Your task to perform on an android device: Open network settings Image 0: 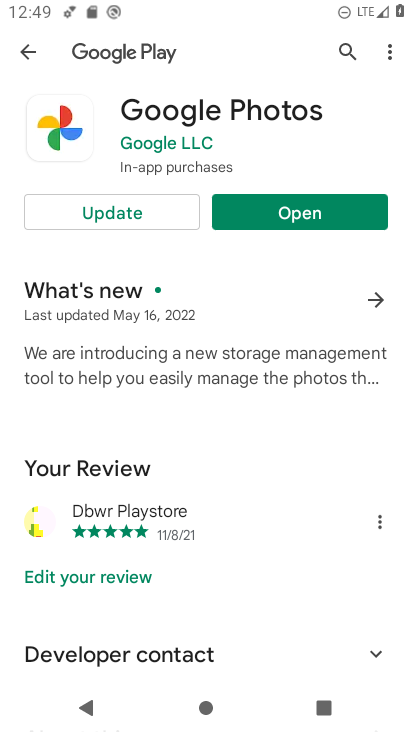
Step 0: press home button
Your task to perform on an android device: Open network settings Image 1: 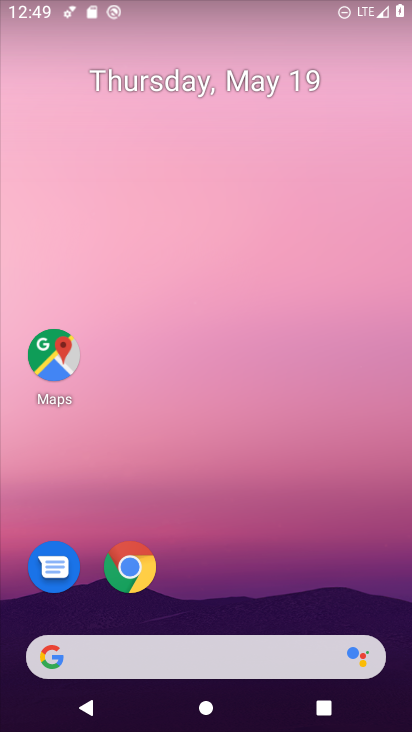
Step 1: drag from (286, 565) to (284, 131)
Your task to perform on an android device: Open network settings Image 2: 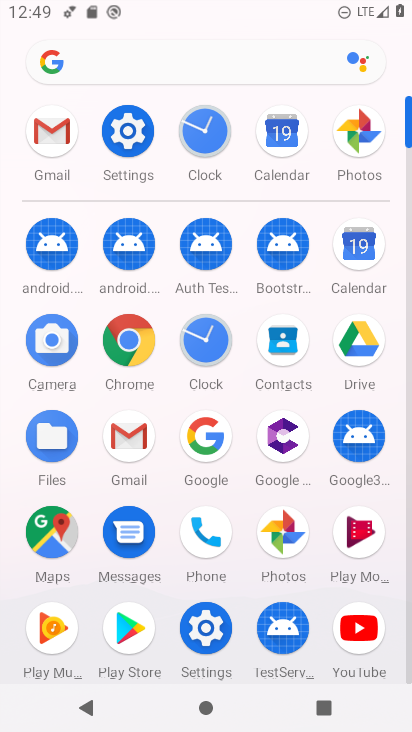
Step 2: click (131, 133)
Your task to perform on an android device: Open network settings Image 3: 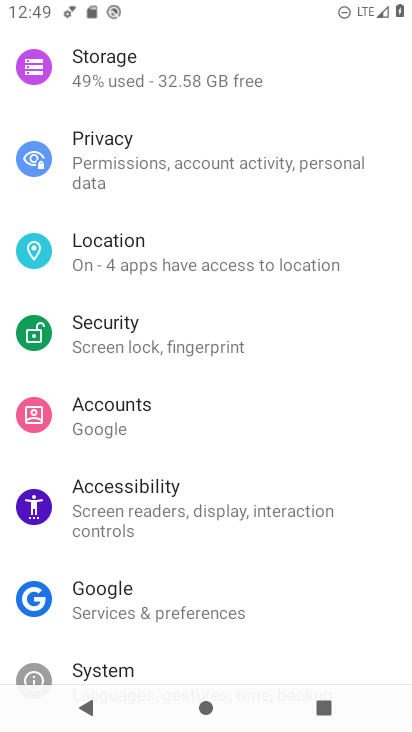
Step 3: drag from (203, 215) to (222, 625)
Your task to perform on an android device: Open network settings Image 4: 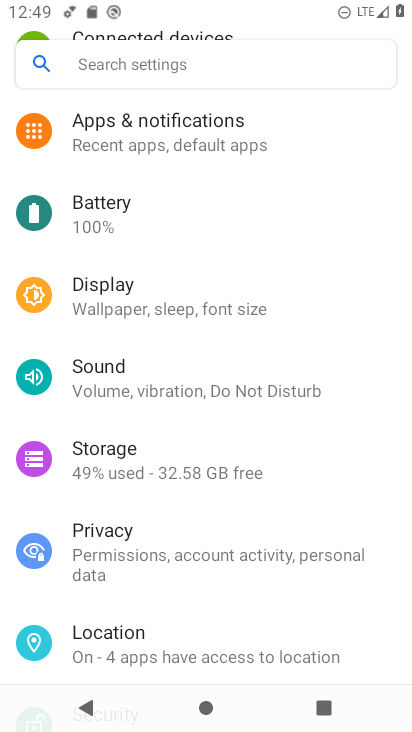
Step 4: drag from (218, 241) to (252, 660)
Your task to perform on an android device: Open network settings Image 5: 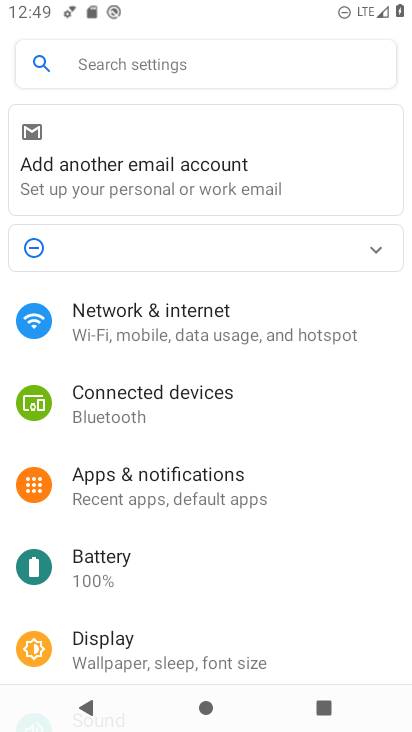
Step 5: click (216, 314)
Your task to perform on an android device: Open network settings Image 6: 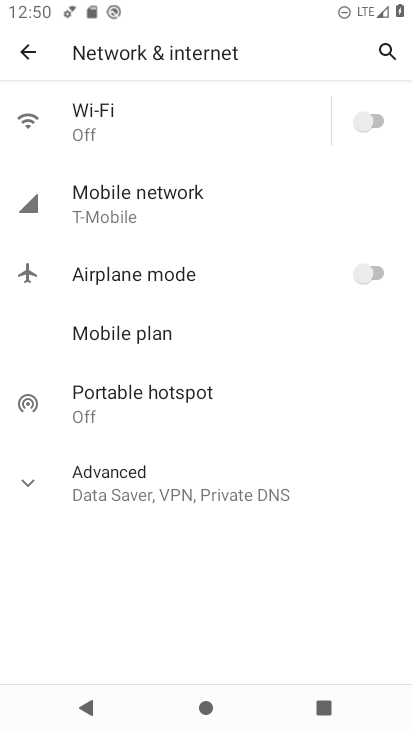
Step 6: task complete